Your task to perform on an android device: Find coffee shops on Maps Image 0: 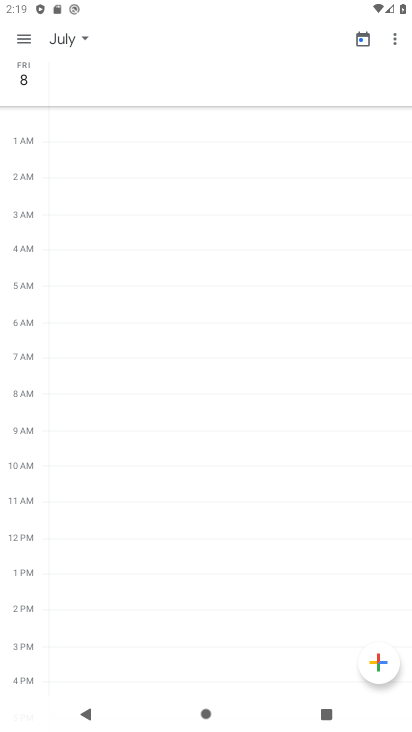
Step 0: press home button
Your task to perform on an android device: Find coffee shops on Maps Image 1: 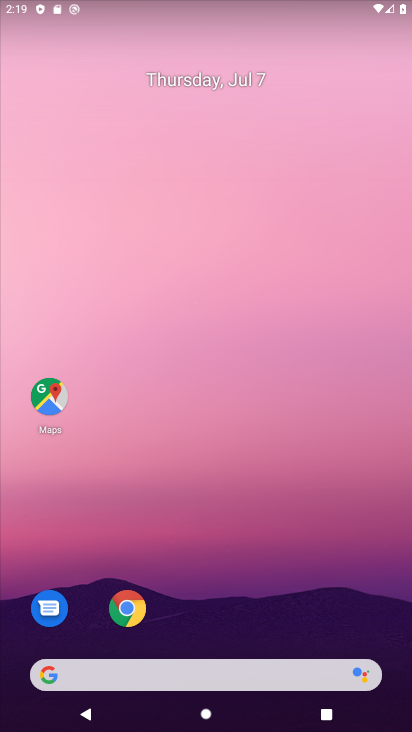
Step 1: click (50, 394)
Your task to perform on an android device: Find coffee shops on Maps Image 2: 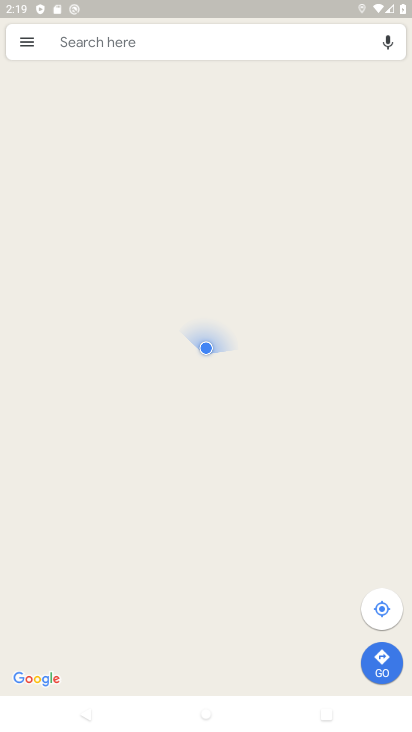
Step 2: click (23, 41)
Your task to perform on an android device: Find coffee shops on Maps Image 3: 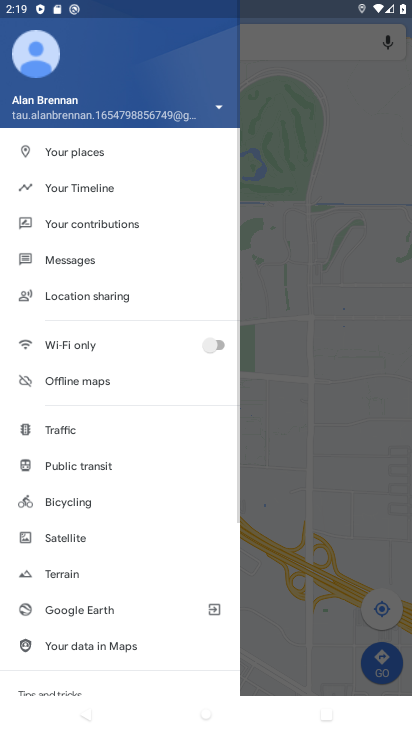
Step 3: drag from (167, 618) to (212, 237)
Your task to perform on an android device: Find coffee shops on Maps Image 4: 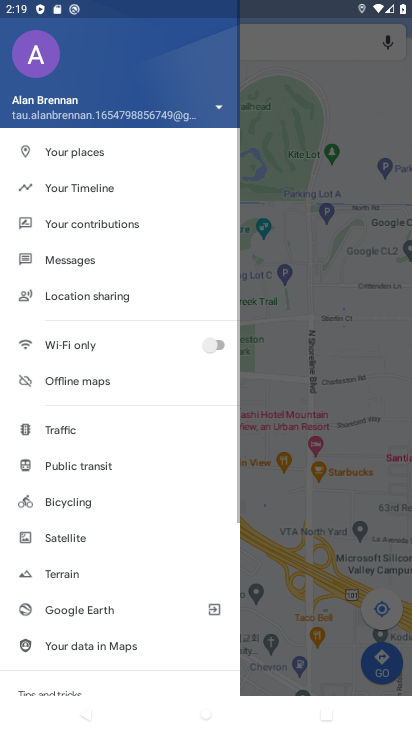
Step 4: click (383, 340)
Your task to perform on an android device: Find coffee shops on Maps Image 5: 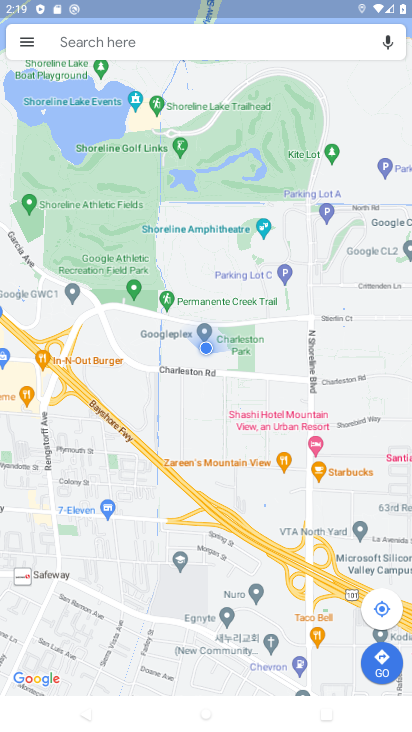
Step 5: click (204, 35)
Your task to perform on an android device: Find coffee shops on Maps Image 6: 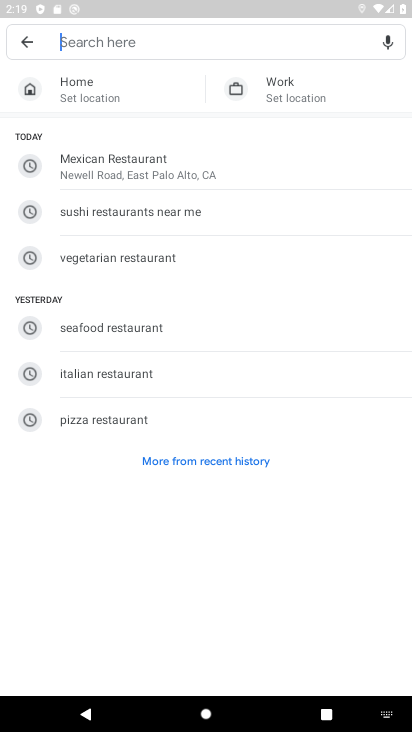
Step 6: type "coffee shop"
Your task to perform on an android device: Find coffee shops on Maps Image 7: 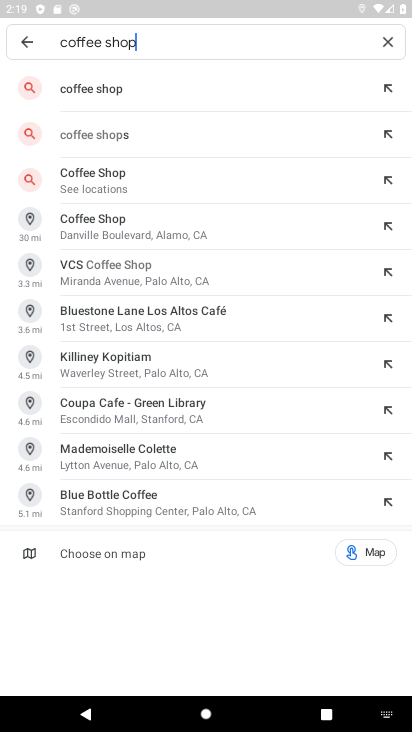
Step 7: click (89, 86)
Your task to perform on an android device: Find coffee shops on Maps Image 8: 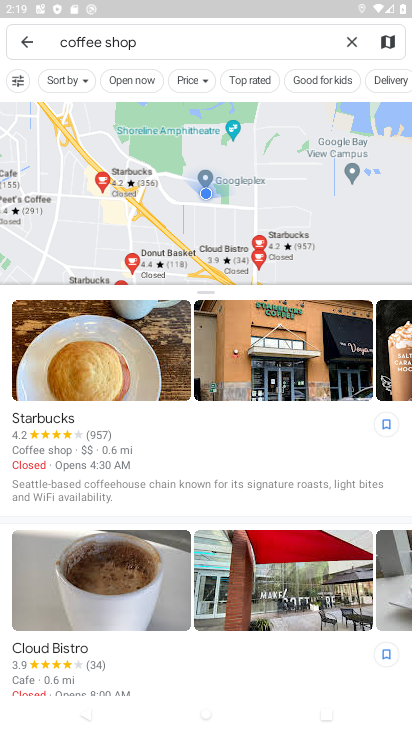
Step 8: task complete